Your task to perform on an android device: Open Wikipedia Image 0: 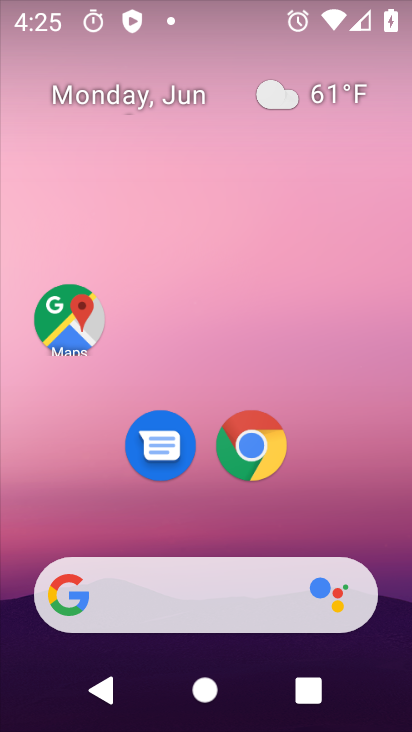
Step 0: click (252, 444)
Your task to perform on an android device: Open Wikipedia Image 1: 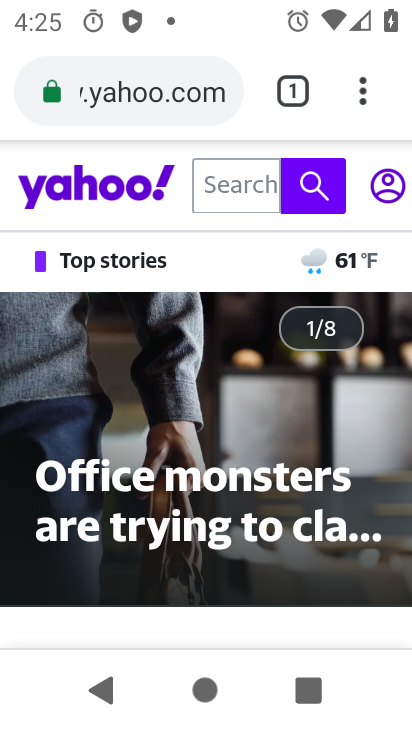
Step 1: press back button
Your task to perform on an android device: Open Wikipedia Image 2: 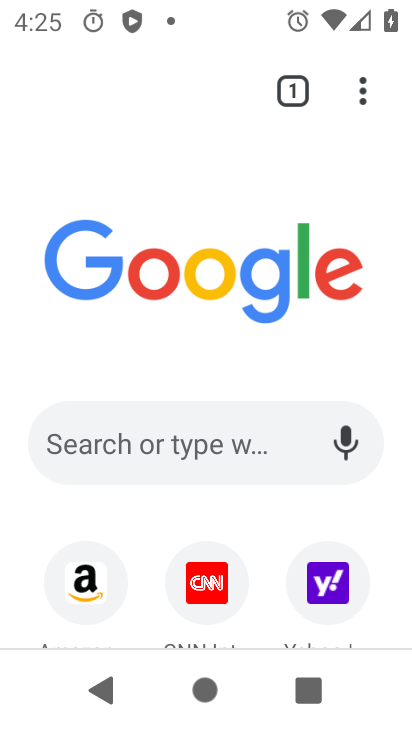
Step 2: drag from (263, 542) to (265, 381)
Your task to perform on an android device: Open Wikipedia Image 3: 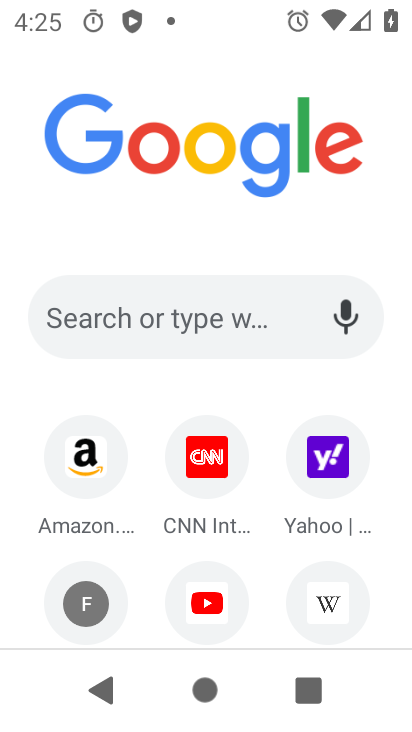
Step 3: click (327, 599)
Your task to perform on an android device: Open Wikipedia Image 4: 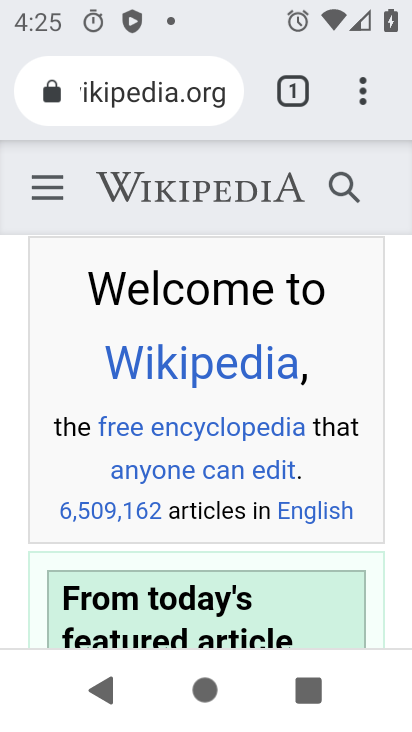
Step 4: task complete